Your task to perform on an android device: add a contact Image 0: 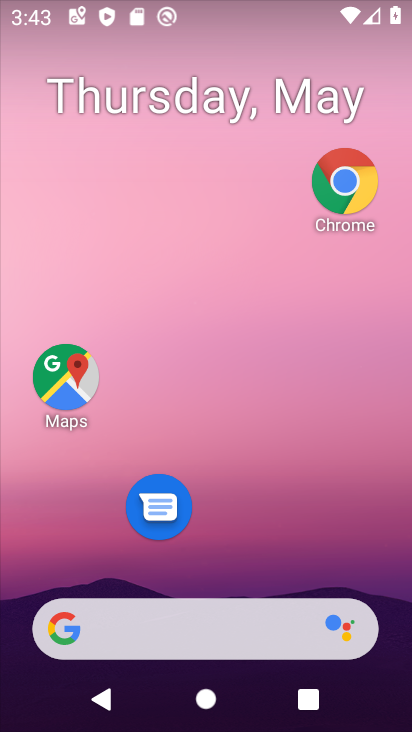
Step 0: drag from (252, 546) to (307, 92)
Your task to perform on an android device: add a contact Image 1: 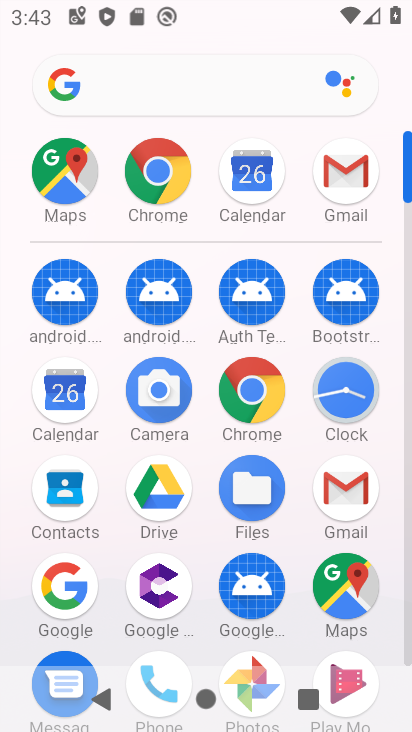
Step 1: click (62, 485)
Your task to perform on an android device: add a contact Image 2: 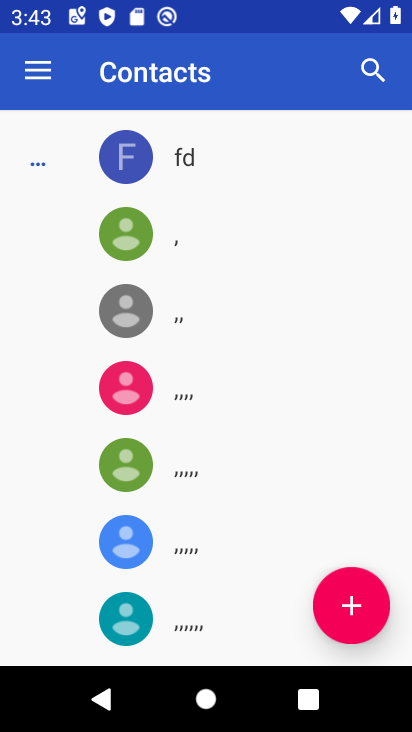
Step 2: click (344, 592)
Your task to perform on an android device: add a contact Image 3: 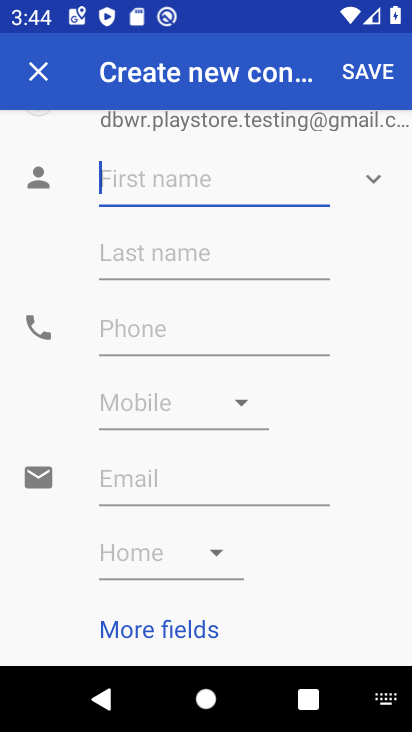
Step 3: type "kkl"
Your task to perform on an android device: add a contact Image 4: 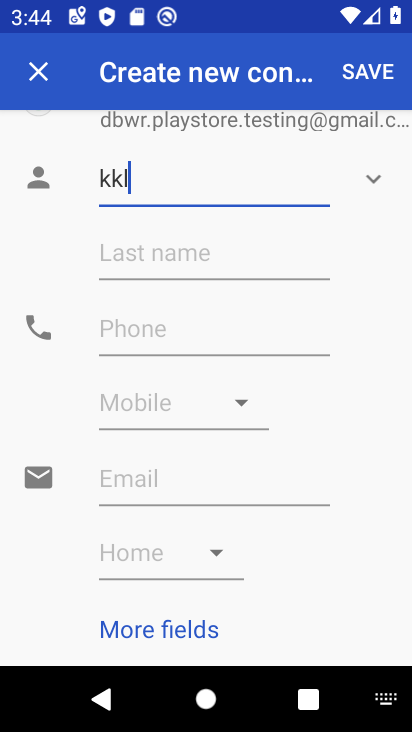
Step 4: click (135, 328)
Your task to perform on an android device: add a contact Image 5: 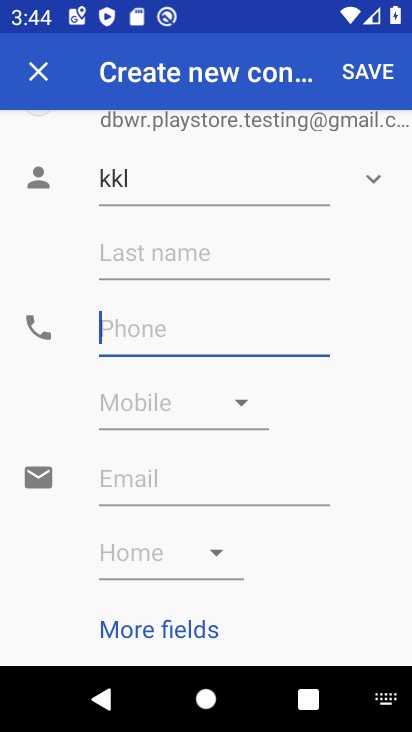
Step 5: type "0099"
Your task to perform on an android device: add a contact Image 6: 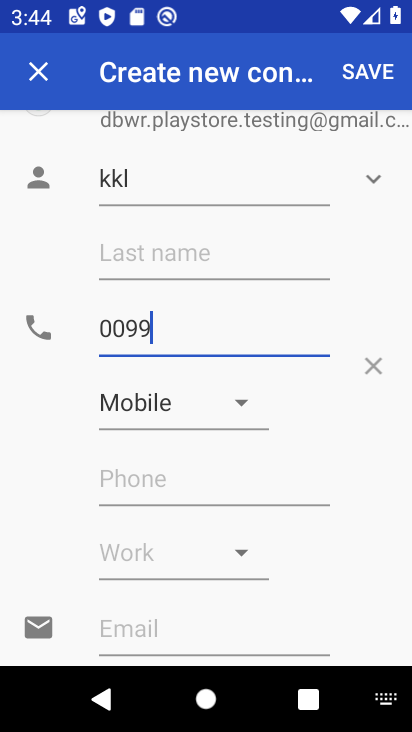
Step 6: click (371, 63)
Your task to perform on an android device: add a contact Image 7: 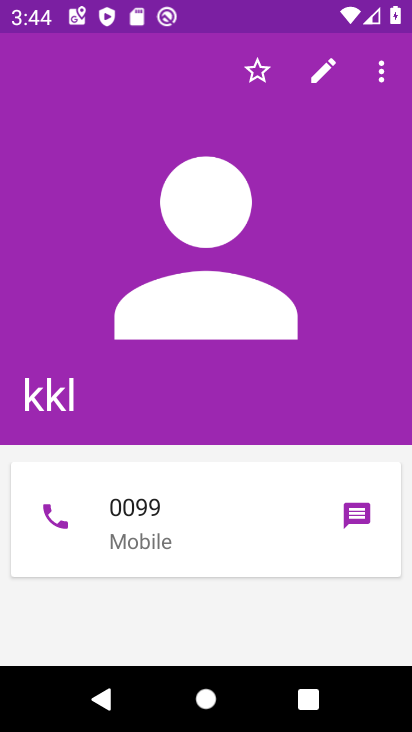
Step 7: task complete